Your task to perform on an android device: show emergency info Image 0: 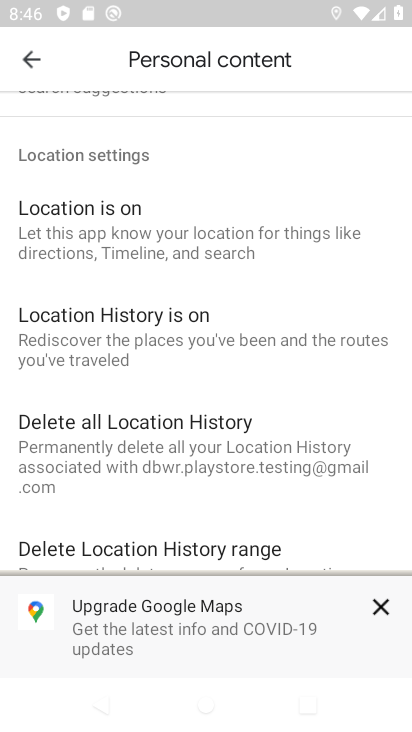
Step 0: press home button
Your task to perform on an android device: show emergency info Image 1: 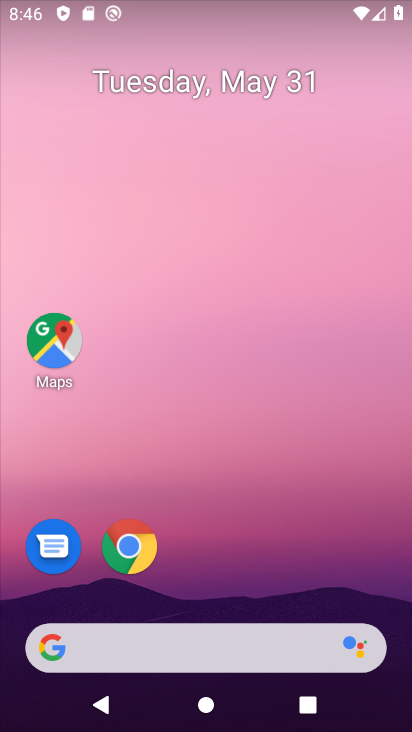
Step 1: drag from (398, 703) to (348, 30)
Your task to perform on an android device: show emergency info Image 2: 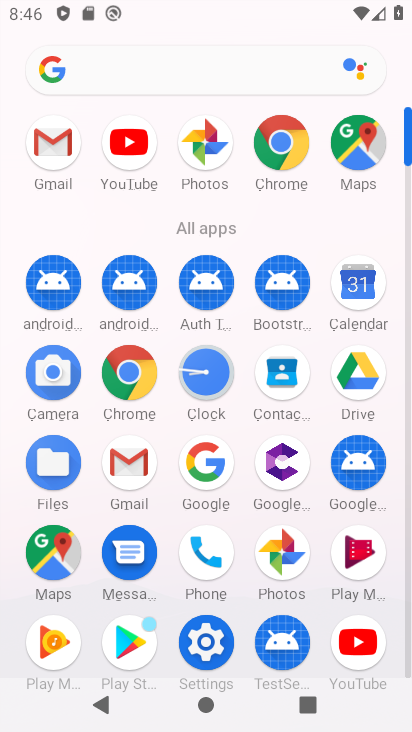
Step 2: click (205, 638)
Your task to perform on an android device: show emergency info Image 3: 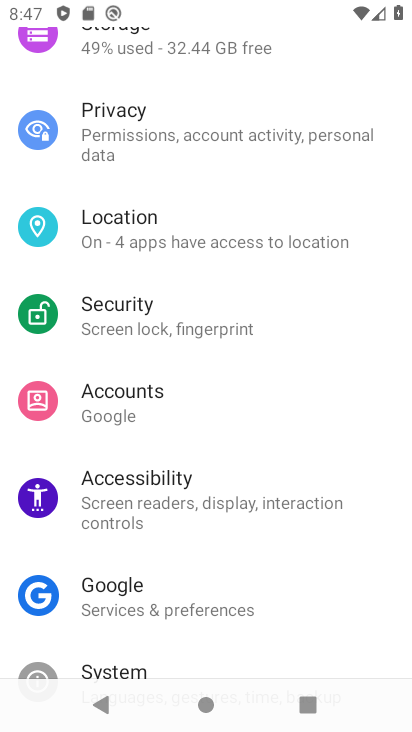
Step 3: drag from (259, 664) to (265, 195)
Your task to perform on an android device: show emergency info Image 4: 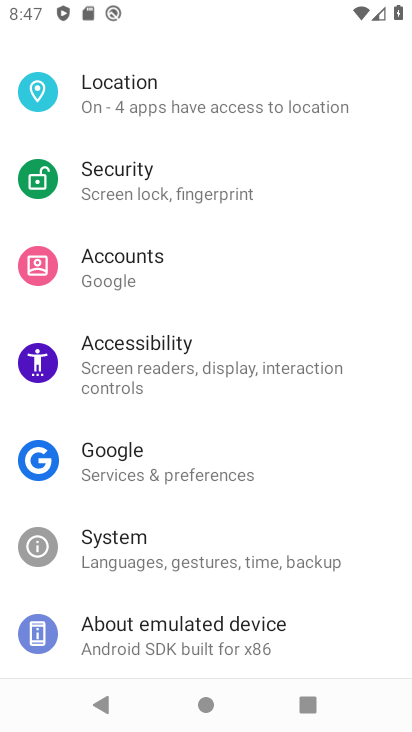
Step 4: click (132, 626)
Your task to perform on an android device: show emergency info Image 5: 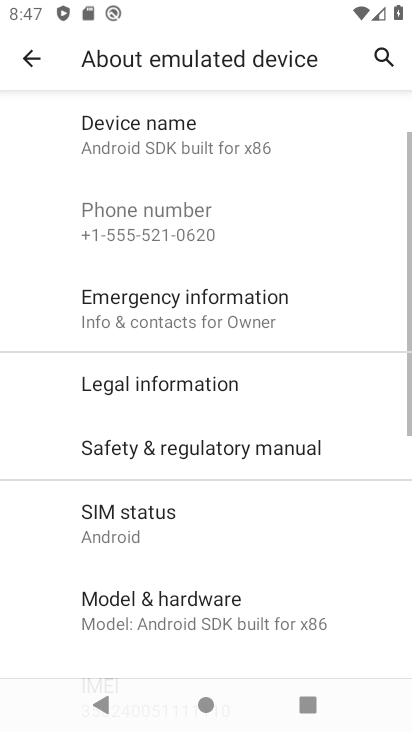
Step 5: task complete